Your task to perform on an android device: visit the assistant section in the google photos Image 0: 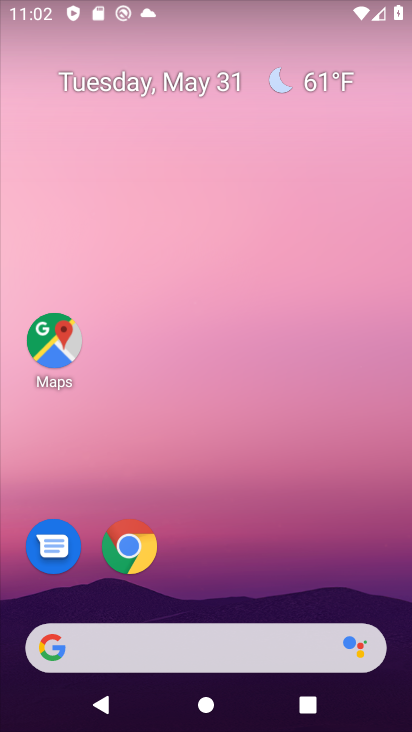
Step 0: drag from (207, 622) to (311, 20)
Your task to perform on an android device: visit the assistant section in the google photos Image 1: 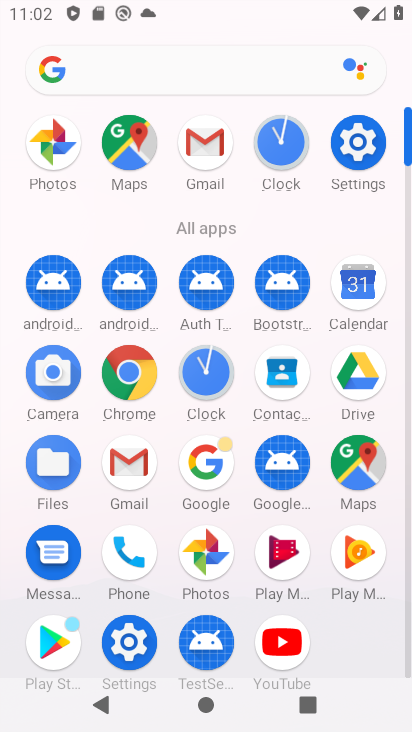
Step 1: click (202, 577)
Your task to perform on an android device: visit the assistant section in the google photos Image 2: 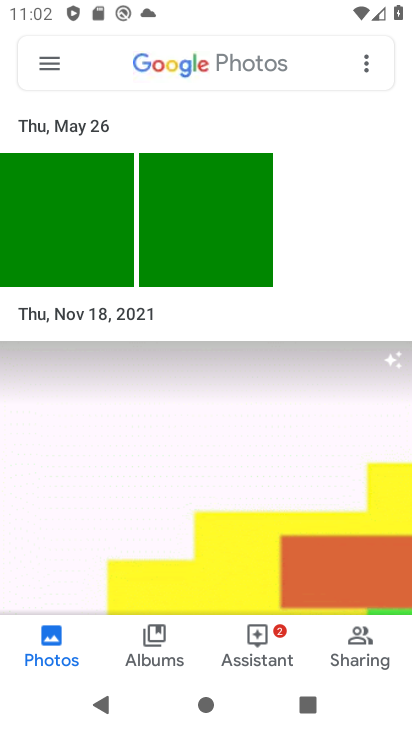
Step 2: click (267, 635)
Your task to perform on an android device: visit the assistant section in the google photos Image 3: 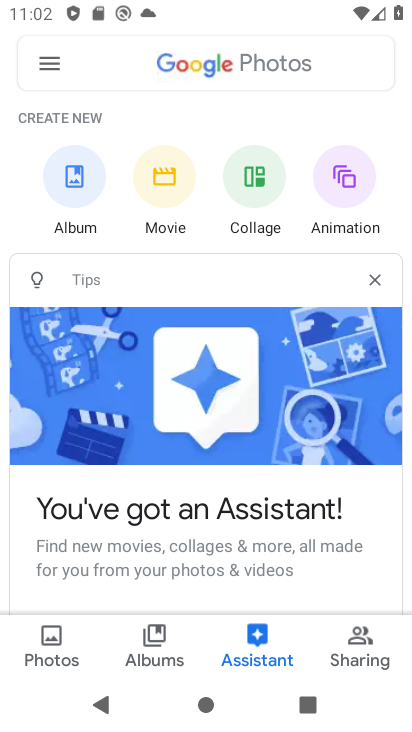
Step 3: task complete